Your task to perform on an android device: Open calendar and show me the second week of next month Image 0: 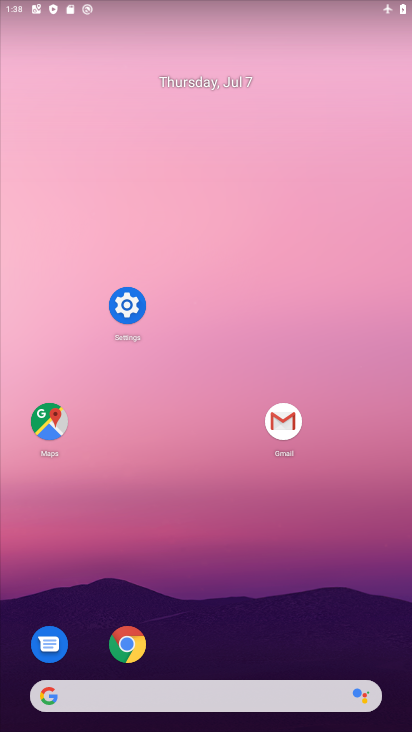
Step 0: drag from (392, 690) to (92, 55)
Your task to perform on an android device: Open calendar and show me the second week of next month Image 1: 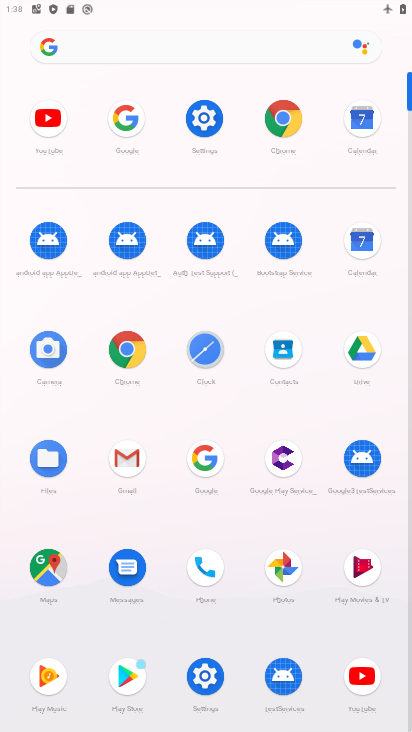
Step 1: drag from (363, 239) to (7, 334)
Your task to perform on an android device: Open calendar and show me the second week of next month Image 2: 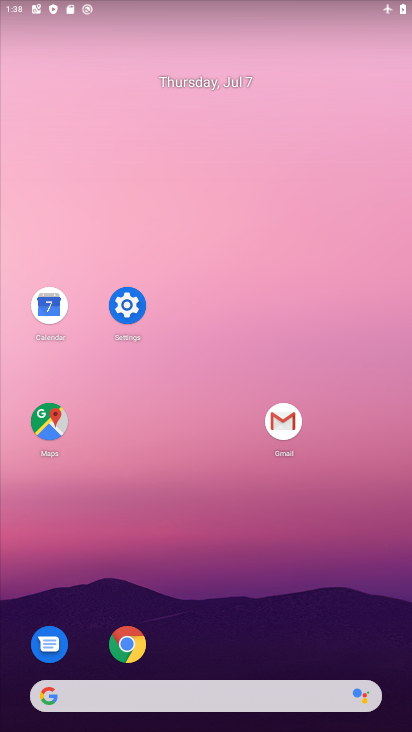
Step 2: click (49, 305)
Your task to perform on an android device: Open calendar and show me the second week of next month Image 3: 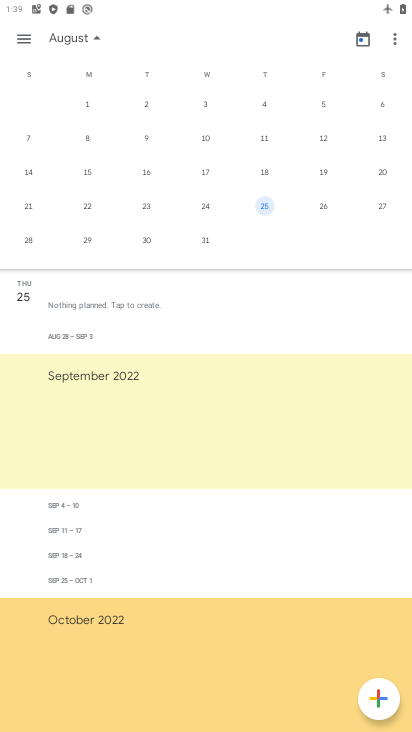
Step 3: click (269, 140)
Your task to perform on an android device: Open calendar and show me the second week of next month Image 4: 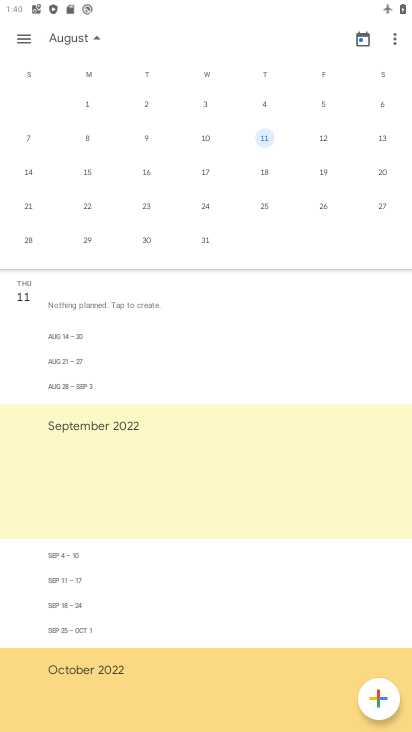
Step 4: task complete